Your task to perform on an android device: snooze an email in the gmail app Image 0: 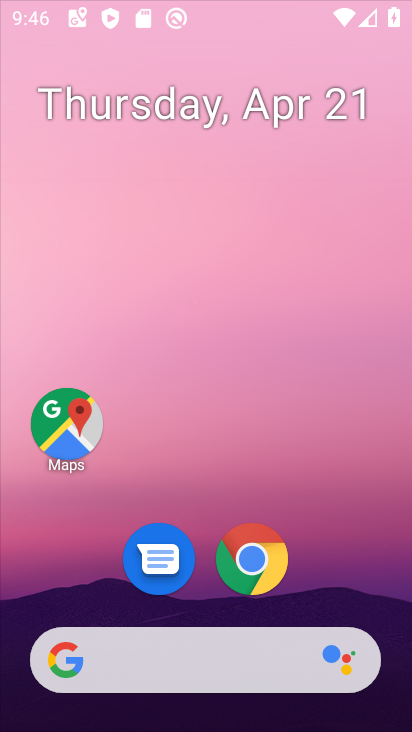
Step 0: drag from (309, 669) to (267, 328)
Your task to perform on an android device: snooze an email in the gmail app Image 1: 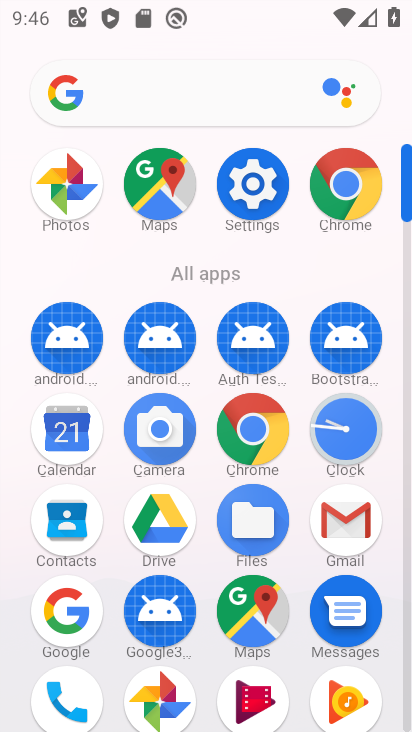
Step 1: click (341, 513)
Your task to perform on an android device: snooze an email in the gmail app Image 2: 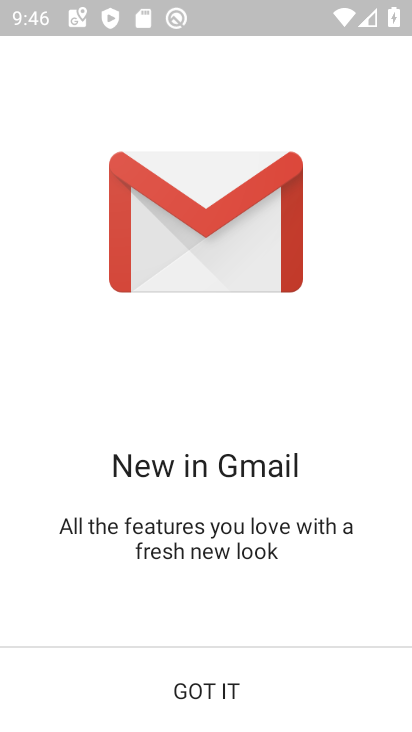
Step 2: click (201, 673)
Your task to perform on an android device: snooze an email in the gmail app Image 3: 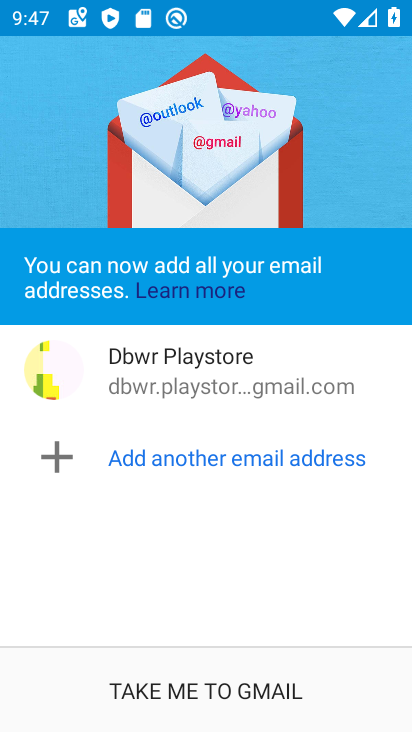
Step 3: click (191, 691)
Your task to perform on an android device: snooze an email in the gmail app Image 4: 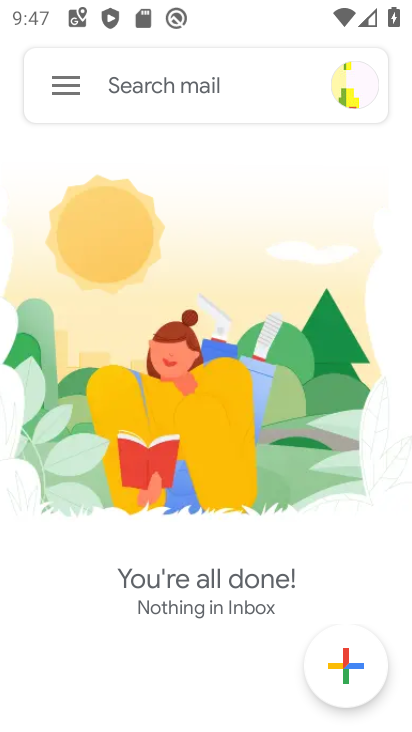
Step 4: click (79, 68)
Your task to perform on an android device: snooze an email in the gmail app Image 5: 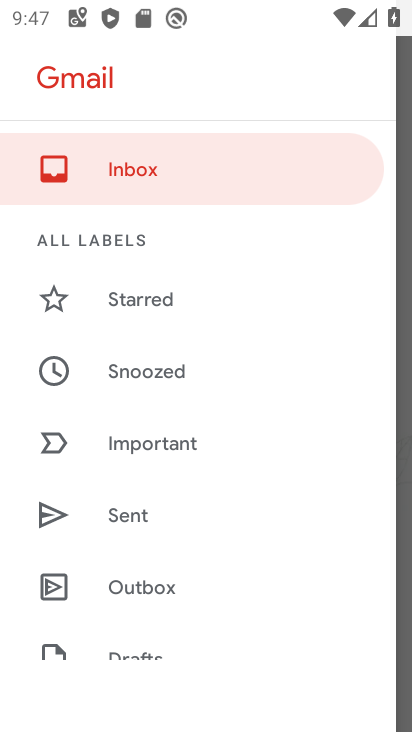
Step 5: click (129, 359)
Your task to perform on an android device: snooze an email in the gmail app Image 6: 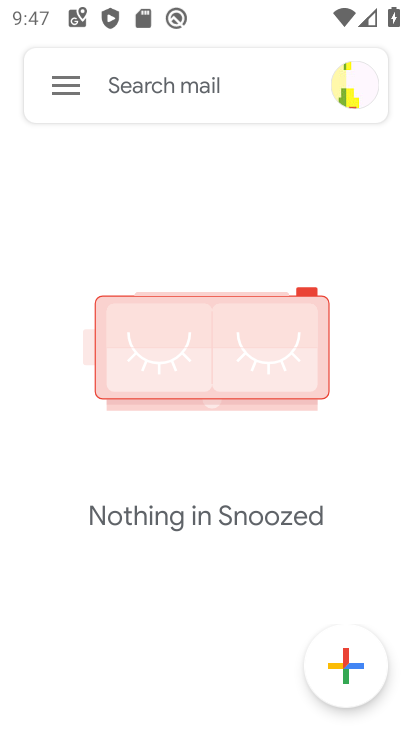
Step 6: task complete